Your task to perform on an android device: clear history in the chrome app Image 0: 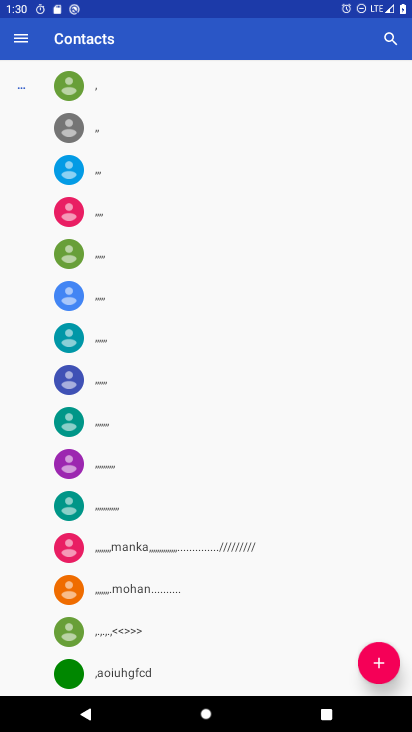
Step 0: press home button
Your task to perform on an android device: clear history in the chrome app Image 1: 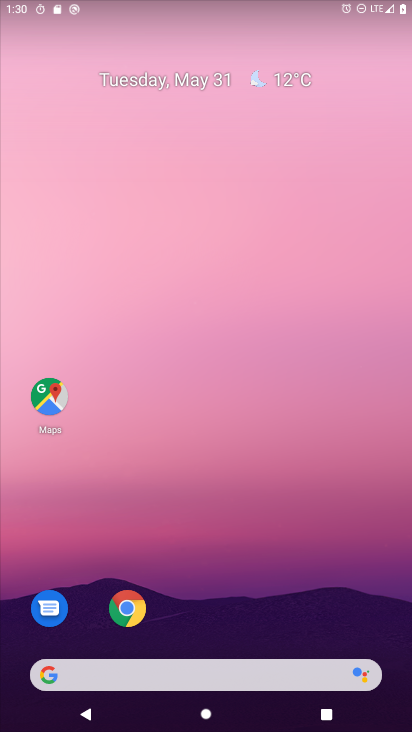
Step 1: click (133, 613)
Your task to perform on an android device: clear history in the chrome app Image 2: 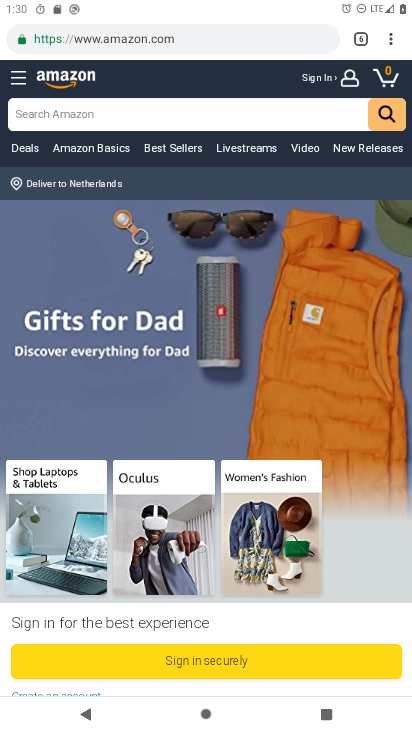
Step 2: click (393, 41)
Your task to perform on an android device: clear history in the chrome app Image 3: 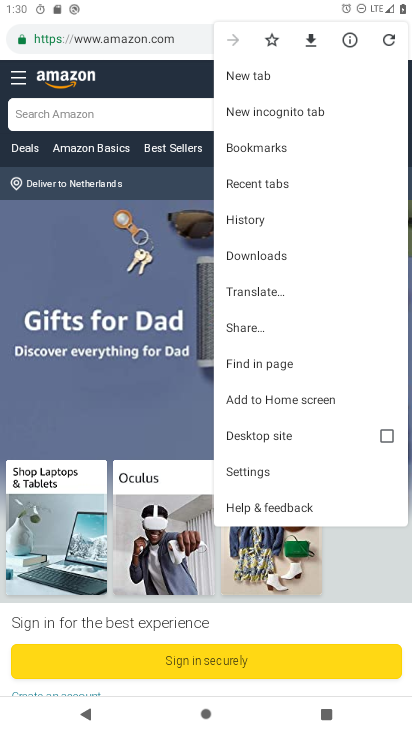
Step 3: click (244, 474)
Your task to perform on an android device: clear history in the chrome app Image 4: 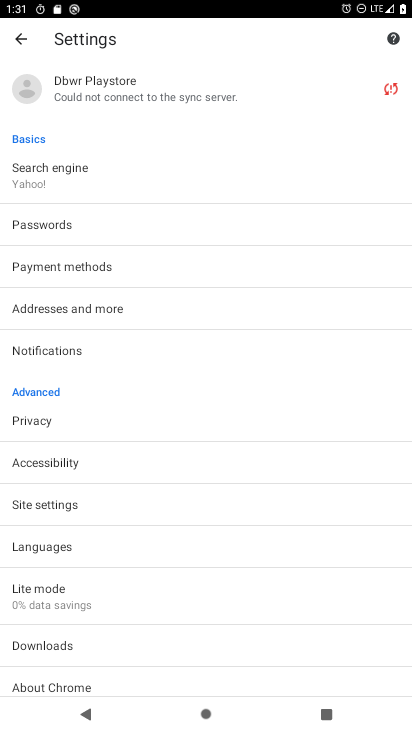
Step 4: click (34, 427)
Your task to perform on an android device: clear history in the chrome app Image 5: 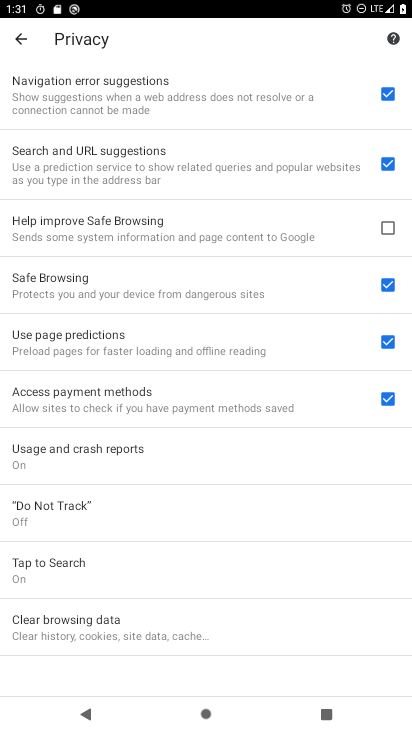
Step 5: click (80, 629)
Your task to perform on an android device: clear history in the chrome app Image 6: 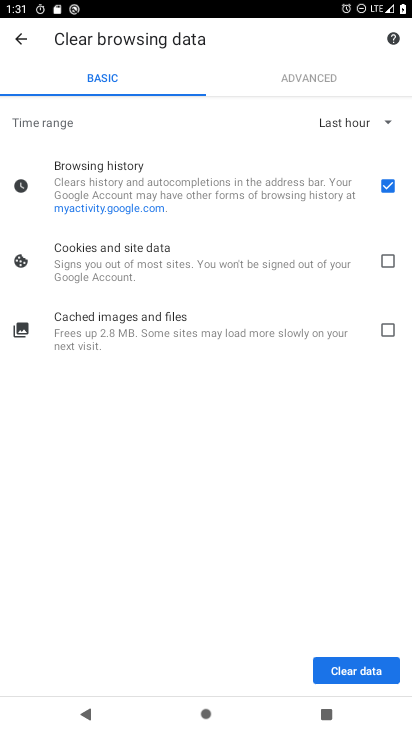
Step 6: click (360, 667)
Your task to perform on an android device: clear history in the chrome app Image 7: 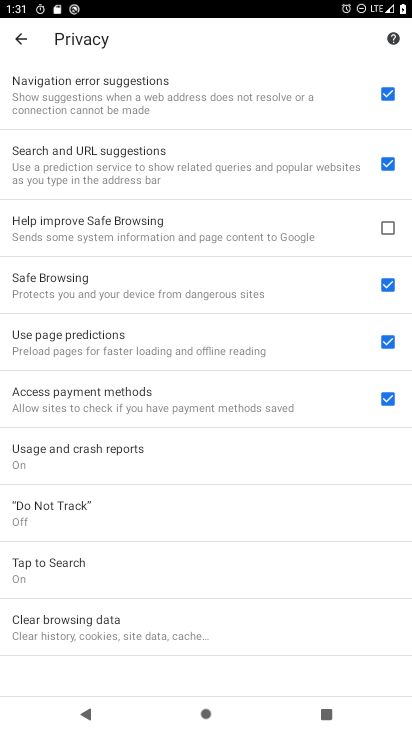
Step 7: task complete